Your task to perform on an android device: Go to internet settings Image 0: 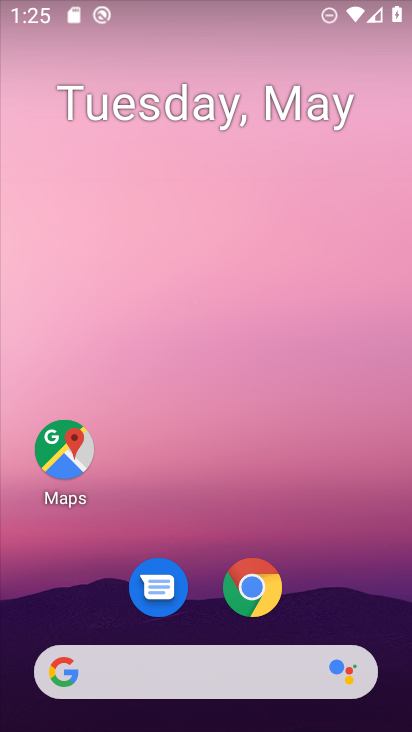
Step 0: drag from (189, 625) to (264, 63)
Your task to perform on an android device: Go to internet settings Image 1: 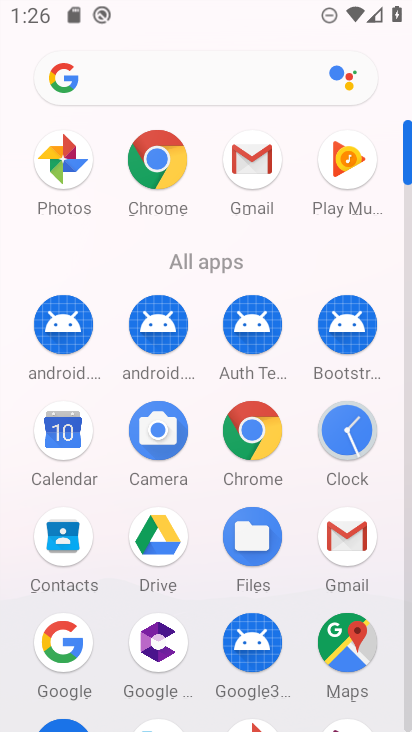
Step 1: drag from (124, 600) to (260, 40)
Your task to perform on an android device: Go to internet settings Image 2: 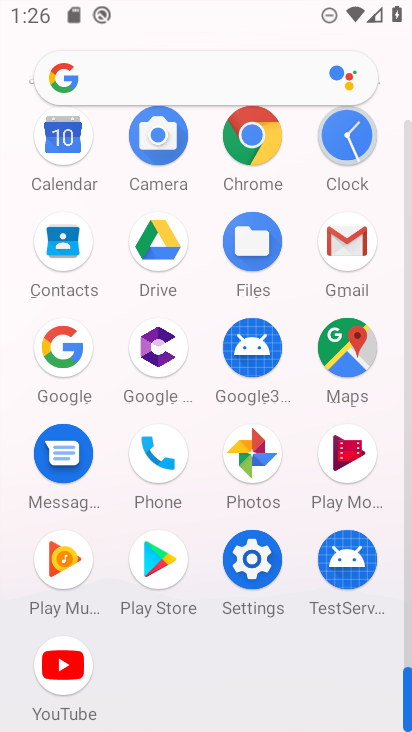
Step 2: click (247, 574)
Your task to perform on an android device: Go to internet settings Image 3: 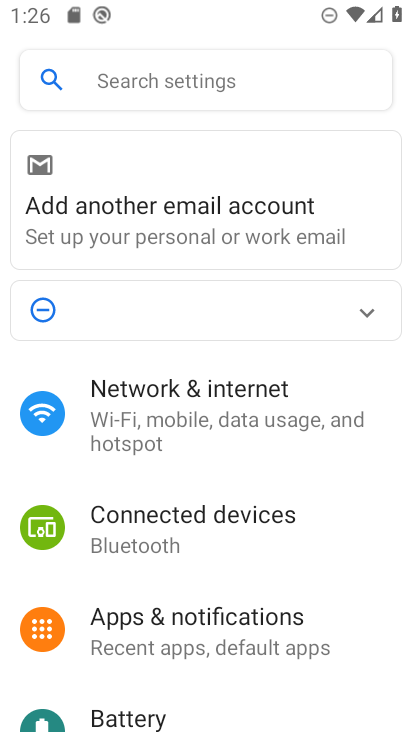
Step 3: click (171, 411)
Your task to perform on an android device: Go to internet settings Image 4: 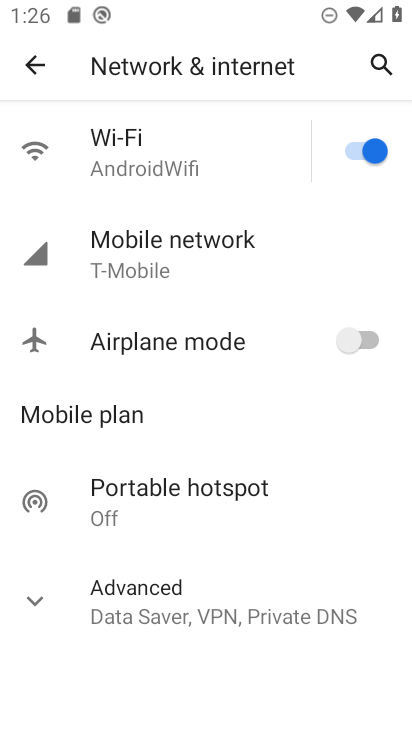
Step 4: click (193, 248)
Your task to perform on an android device: Go to internet settings Image 5: 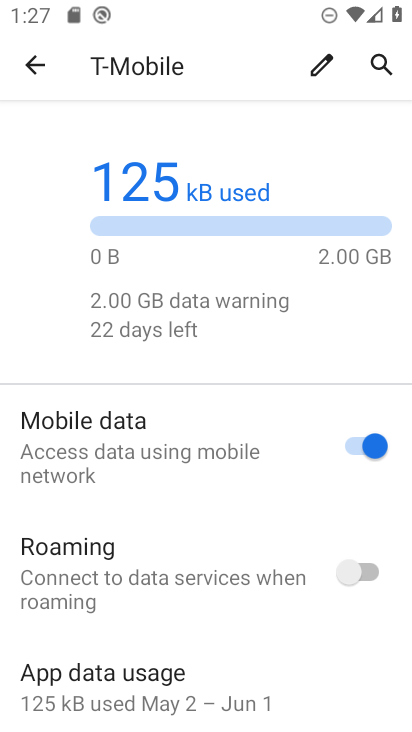
Step 5: task complete